Your task to perform on an android device: open app "Clock" (install if not already installed) Image 0: 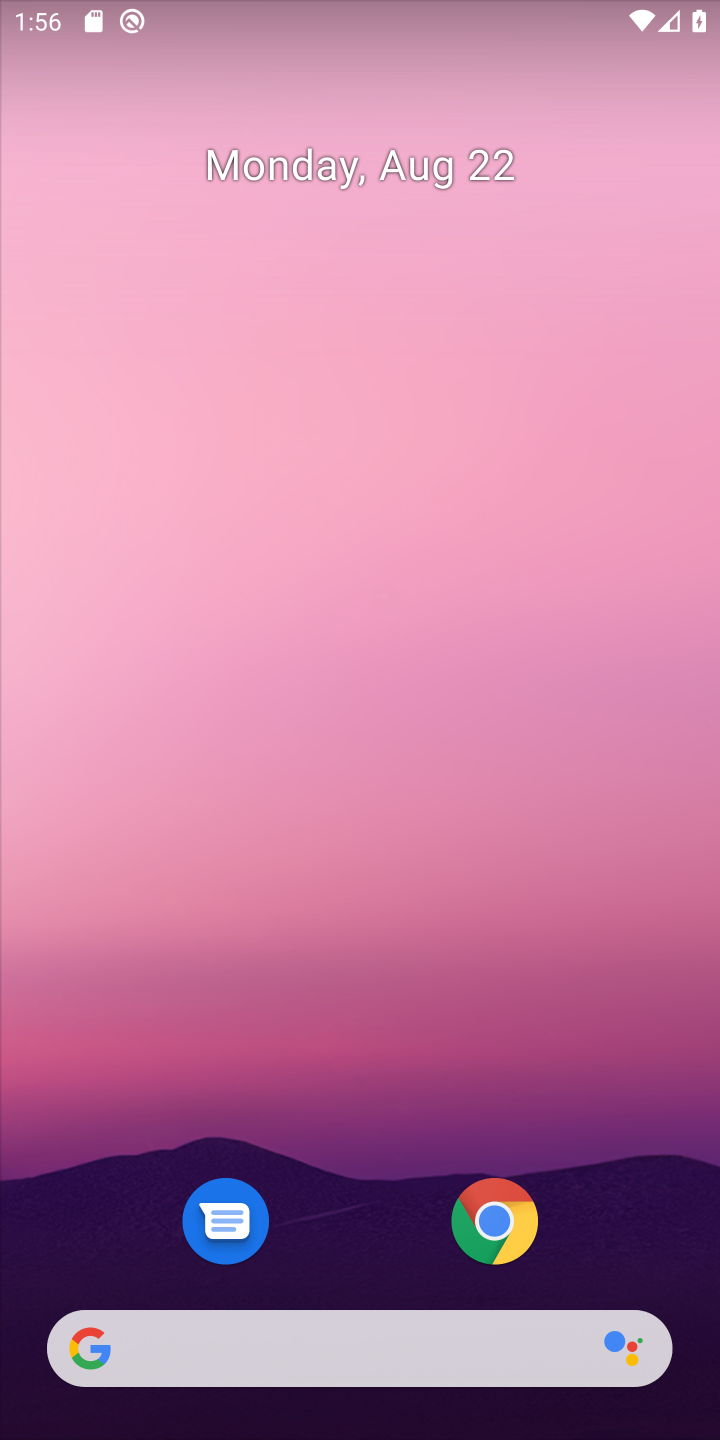
Step 0: press home button
Your task to perform on an android device: open app "Clock" (install if not already installed) Image 1: 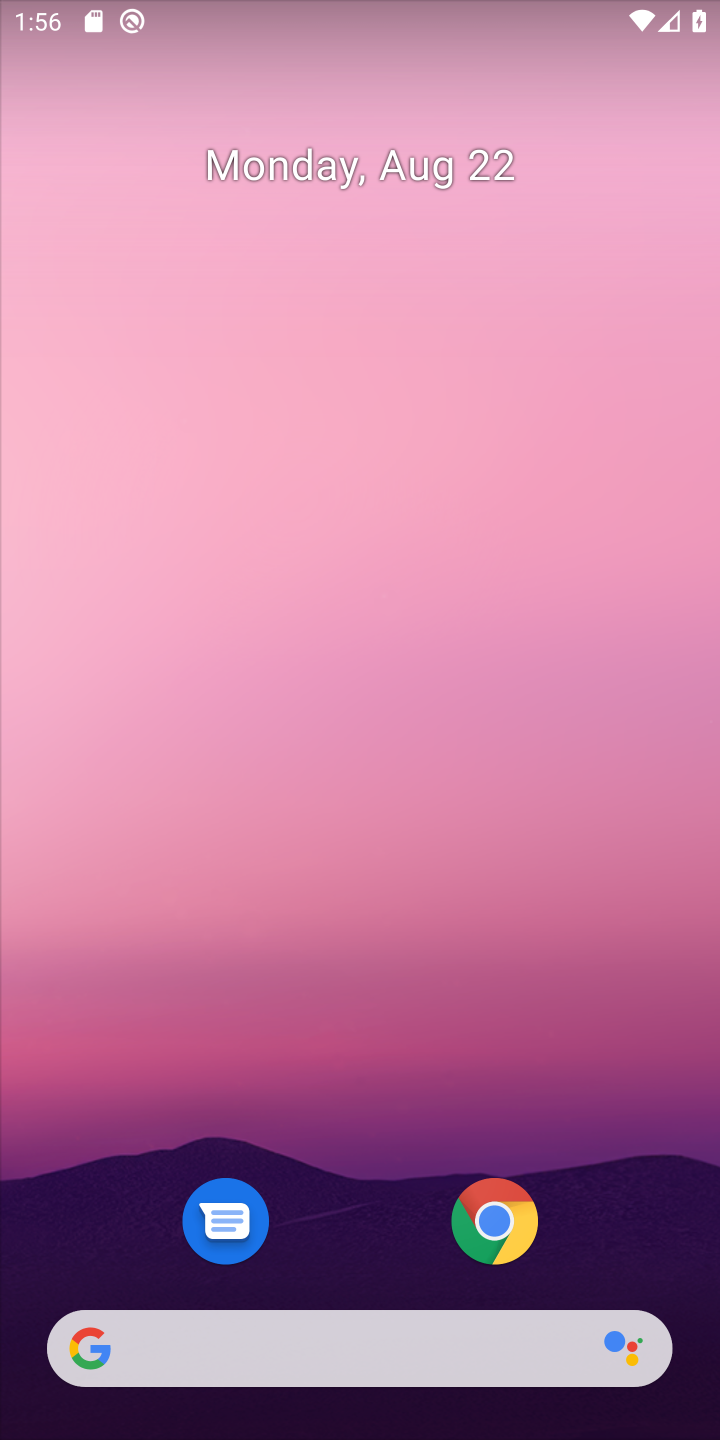
Step 1: drag from (365, 1236) to (356, 165)
Your task to perform on an android device: open app "Clock" (install if not already installed) Image 2: 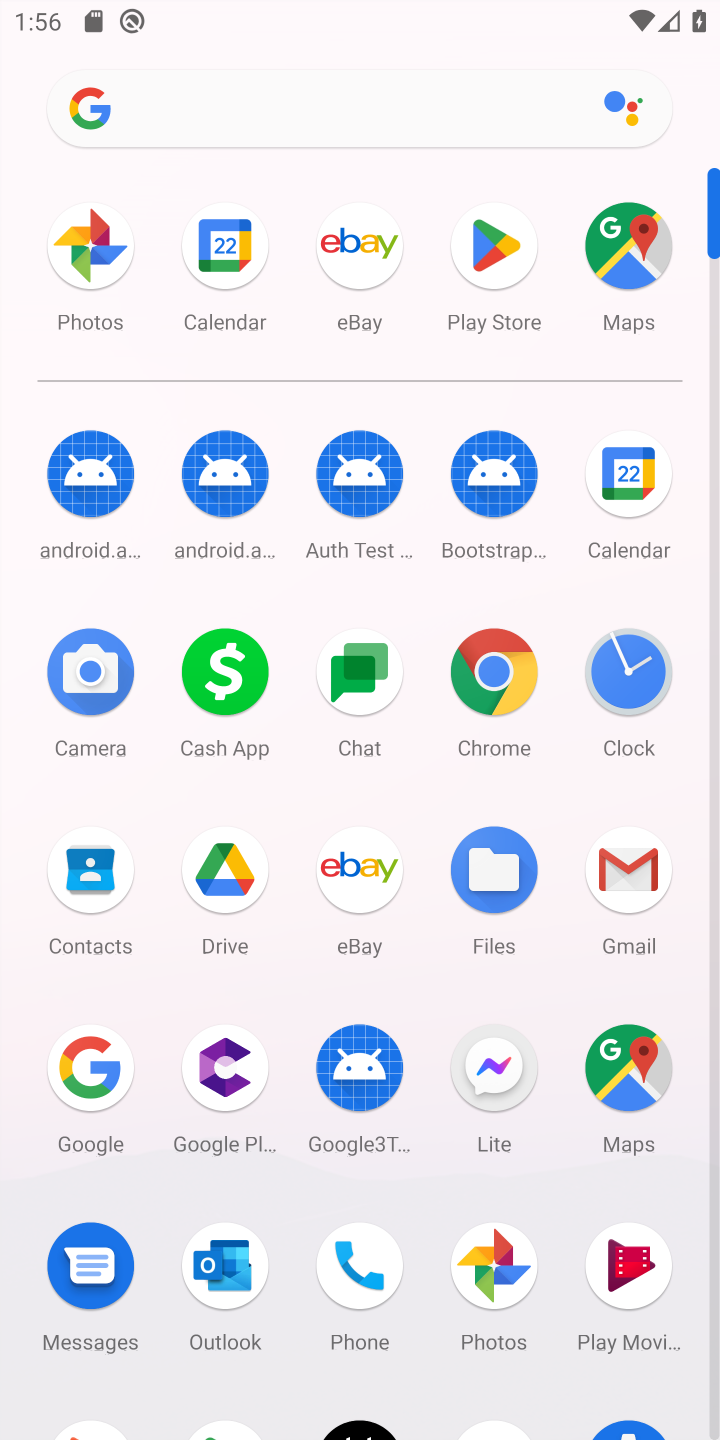
Step 2: click (624, 660)
Your task to perform on an android device: open app "Clock" (install if not already installed) Image 3: 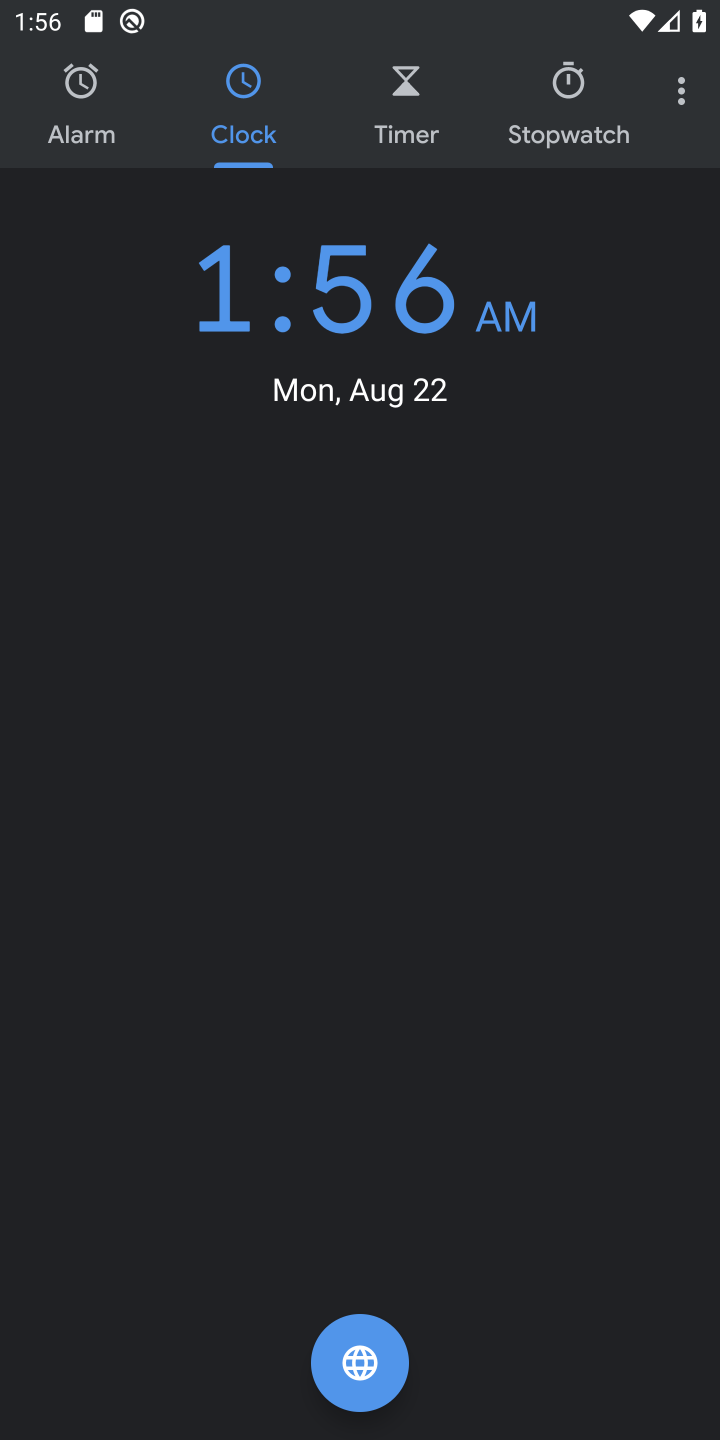
Step 3: press home button
Your task to perform on an android device: open app "Clock" (install if not already installed) Image 4: 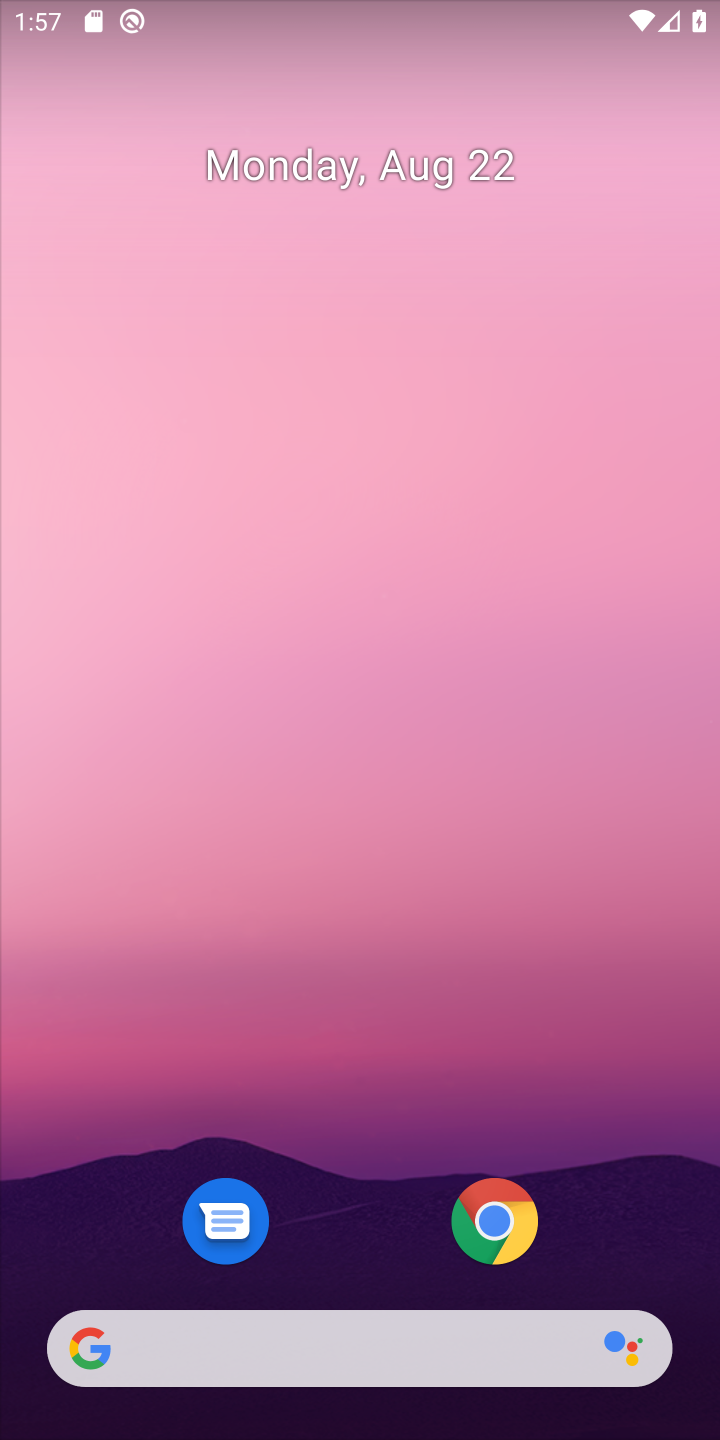
Step 4: drag from (367, 1247) to (373, 175)
Your task to perform on an android device: open app "Clock" (install if not already installed) Image 5: 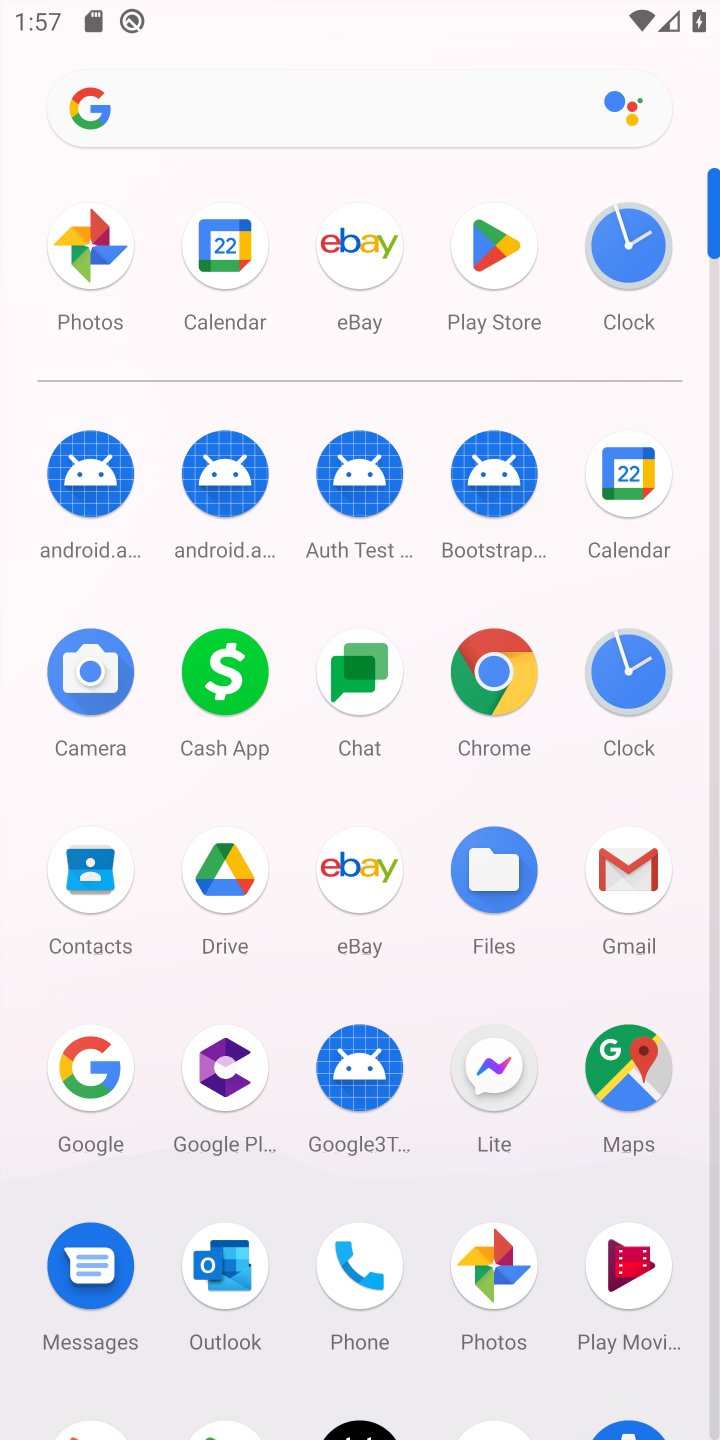
Step 5: click (483, 240)
Your task to perform on an android device: open app "Clock" (install if not already installed) Image 6: 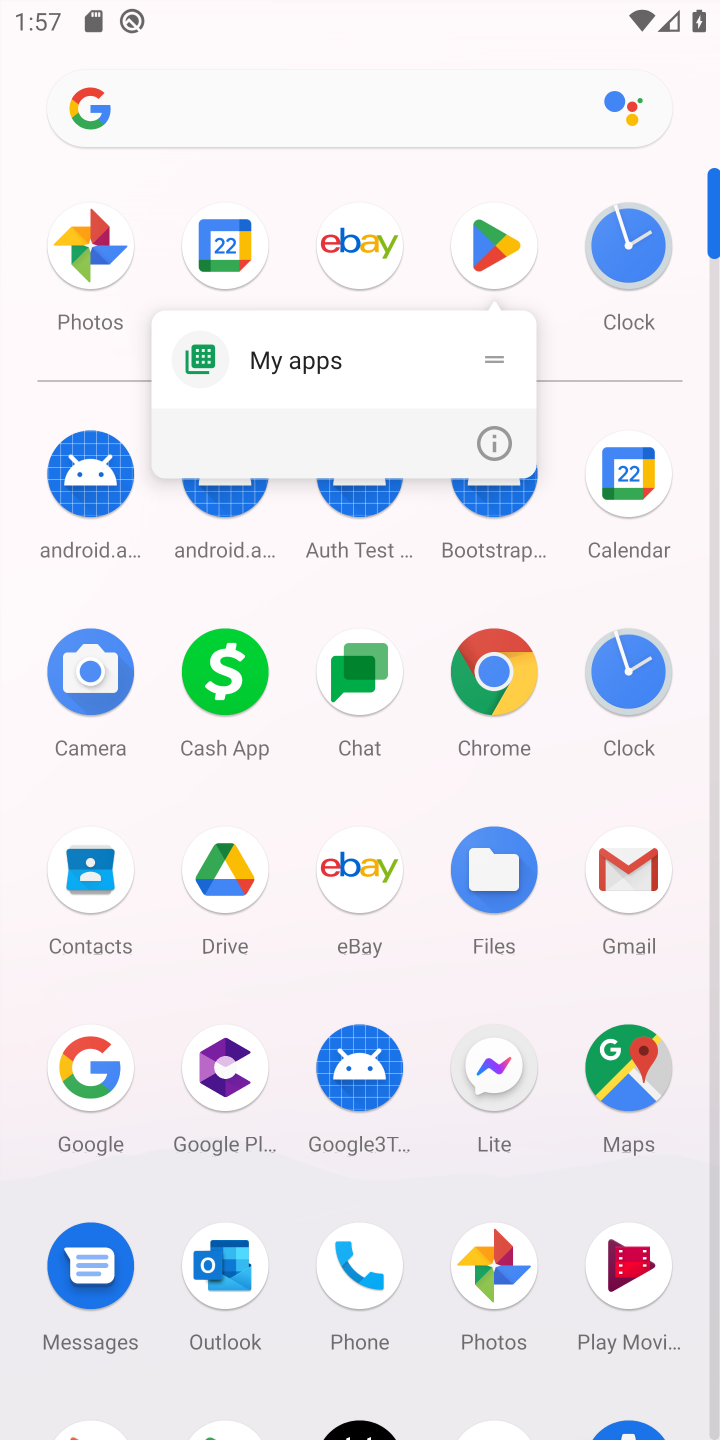
Step 6: click (493, 240)
Your task to perform on an android device: open app "Clock" (install if not already installed) Image 7: 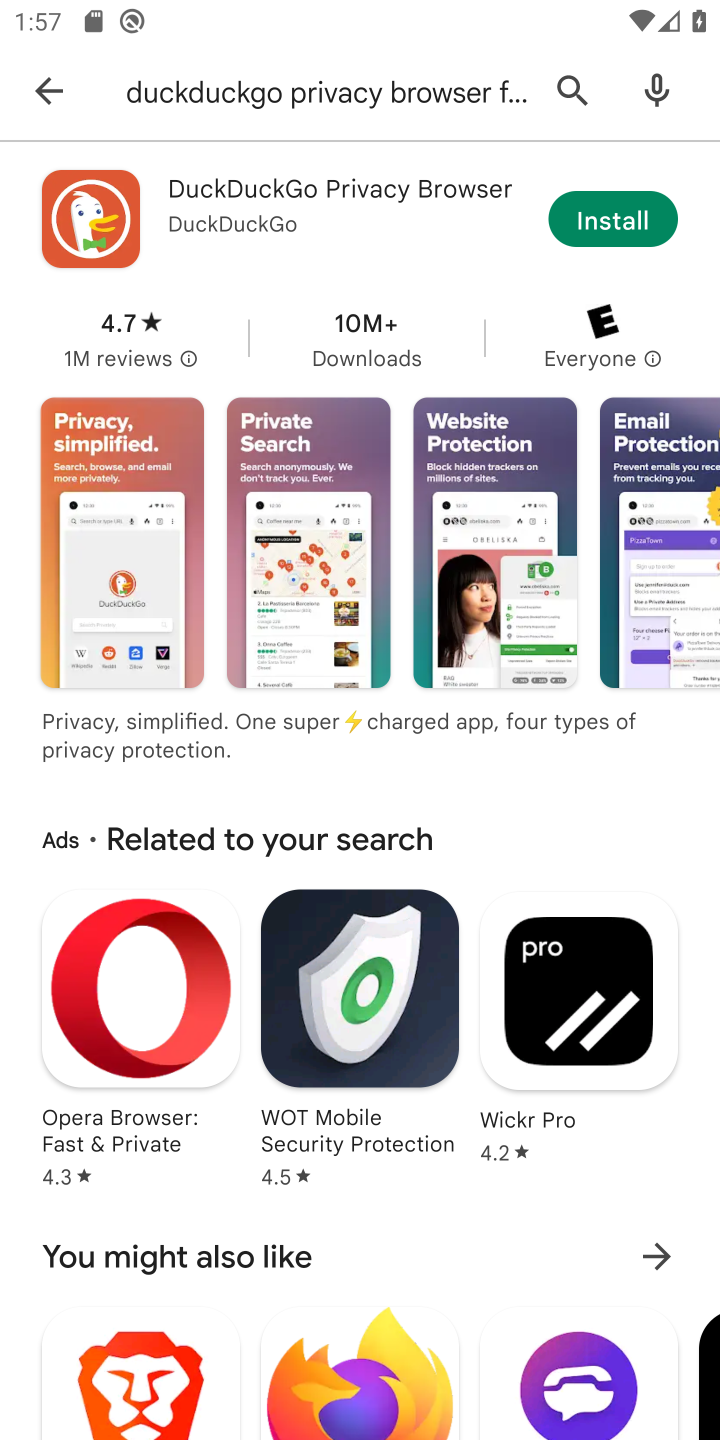
Step 7: click (560, 79)
Your task to perform on an android device: open app "Clock" (install if not already installed) Image 8: 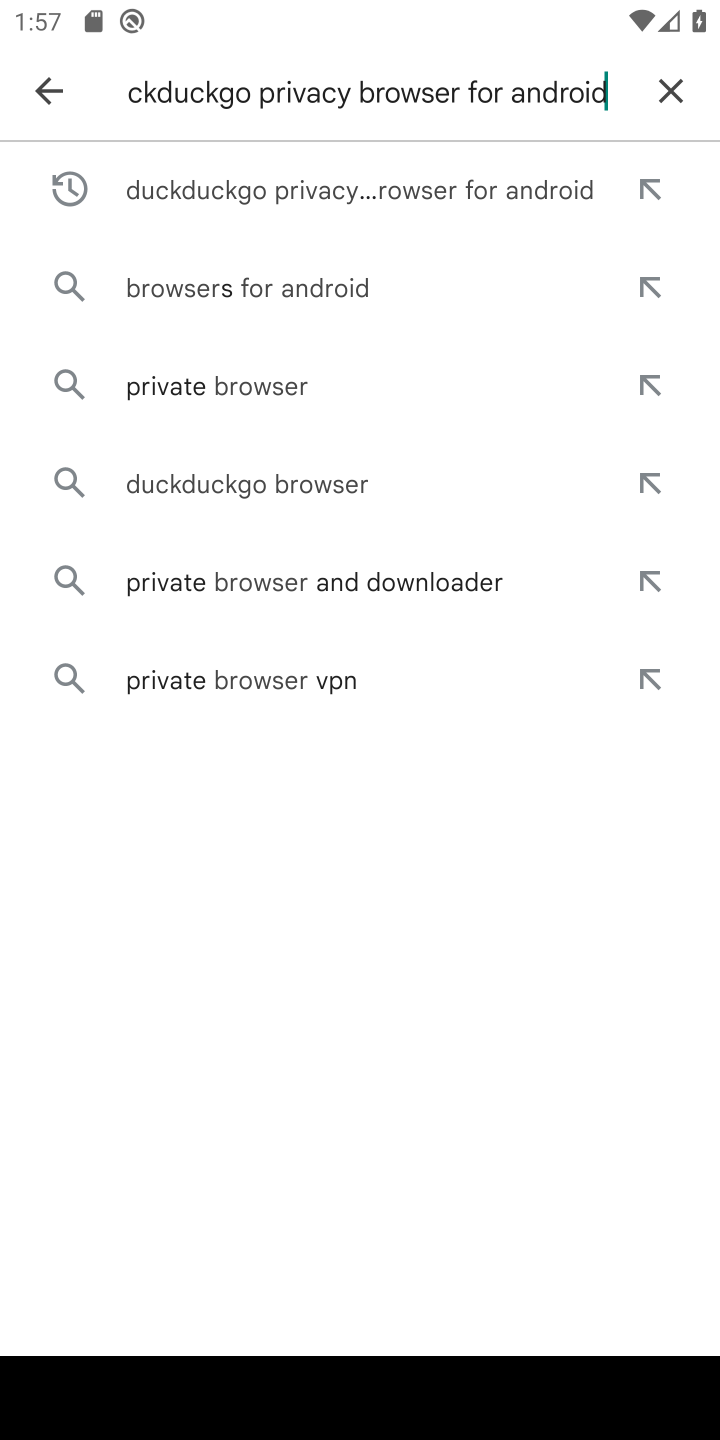
Step 8: click (661, 96)
Your task to perform on an android device: open app "Clock" (install if not already installed) Image 9: 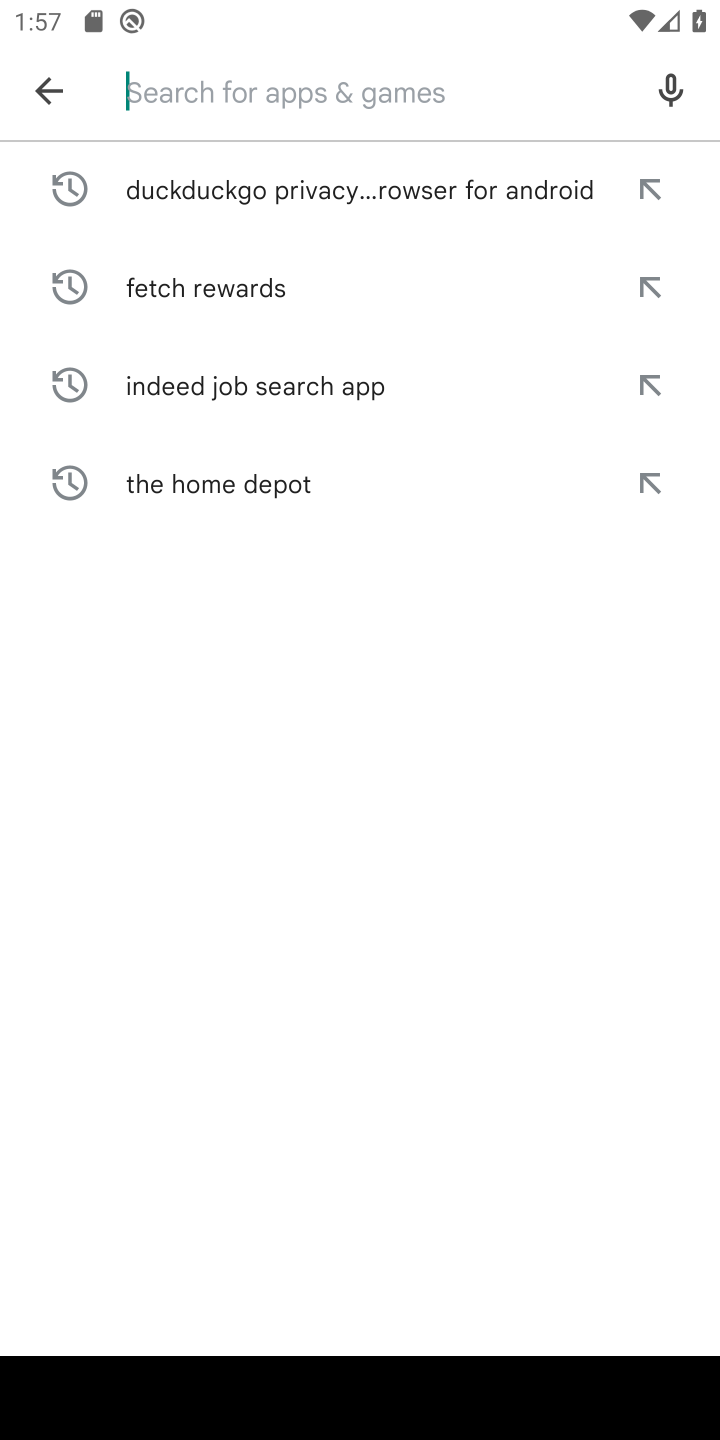
Step 9: type "Clock"
Your task to perform on an android device: open app "Clock" (install if not already installed) Image 10: 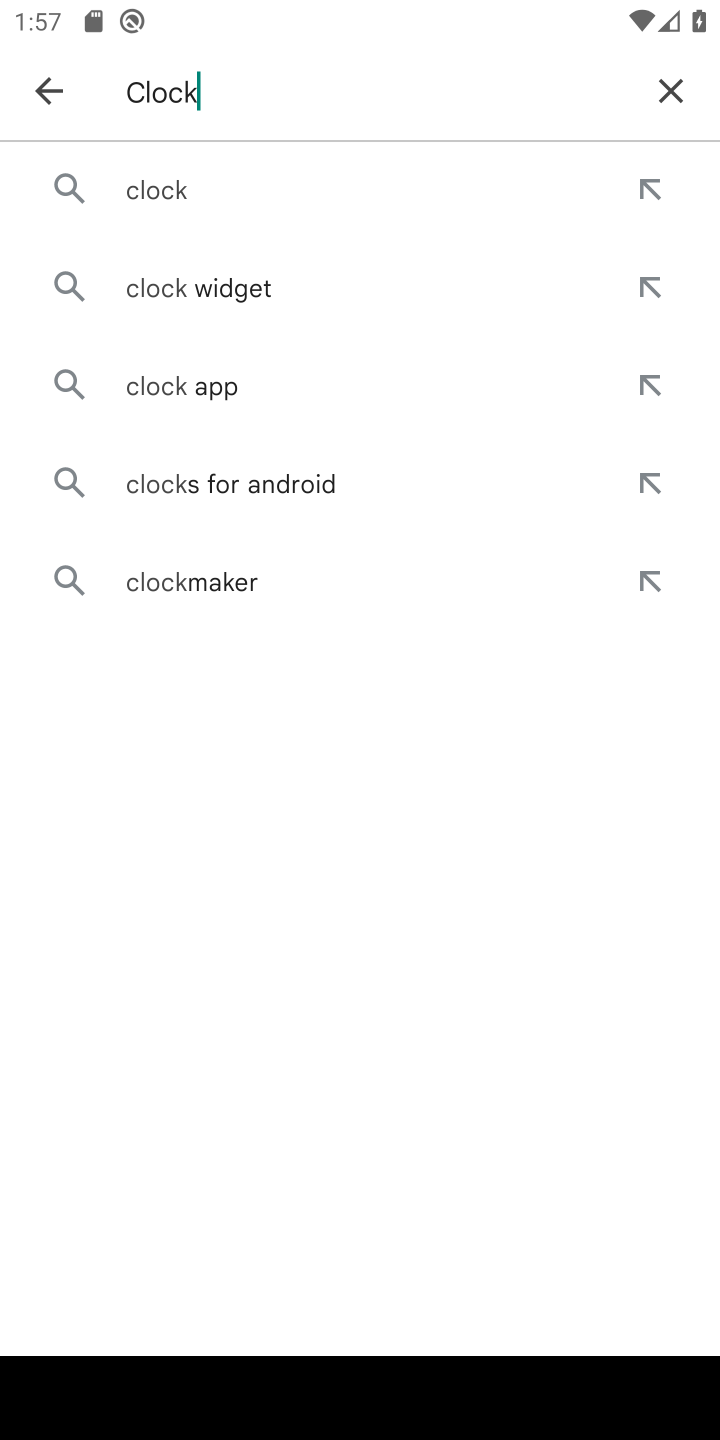
Step 10: click (217, 183)
Your task to perform on an android device: open app "Clock" (install if not already installed) Image 11: 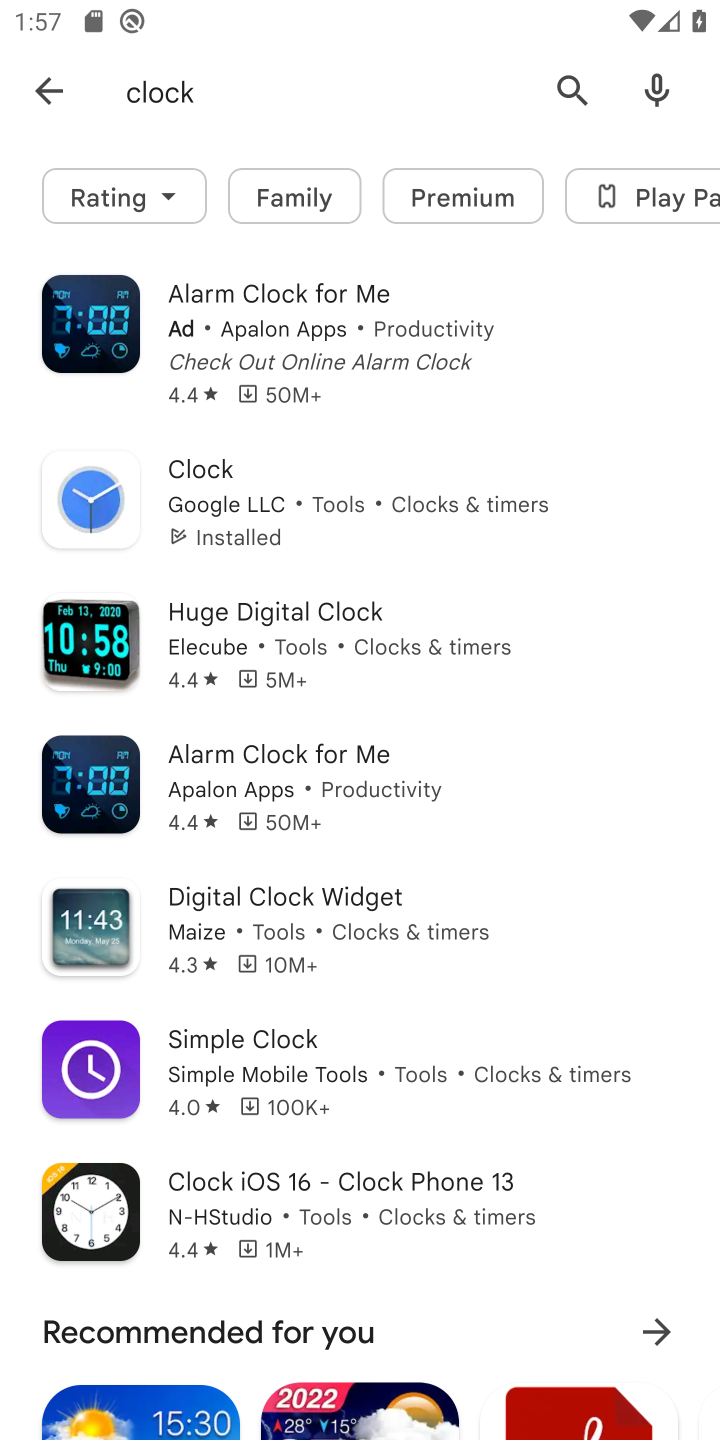
Step 11: click (292, 515)
Your task to perform on an android device: open app "Clock" (install if not already installed) Image 12: 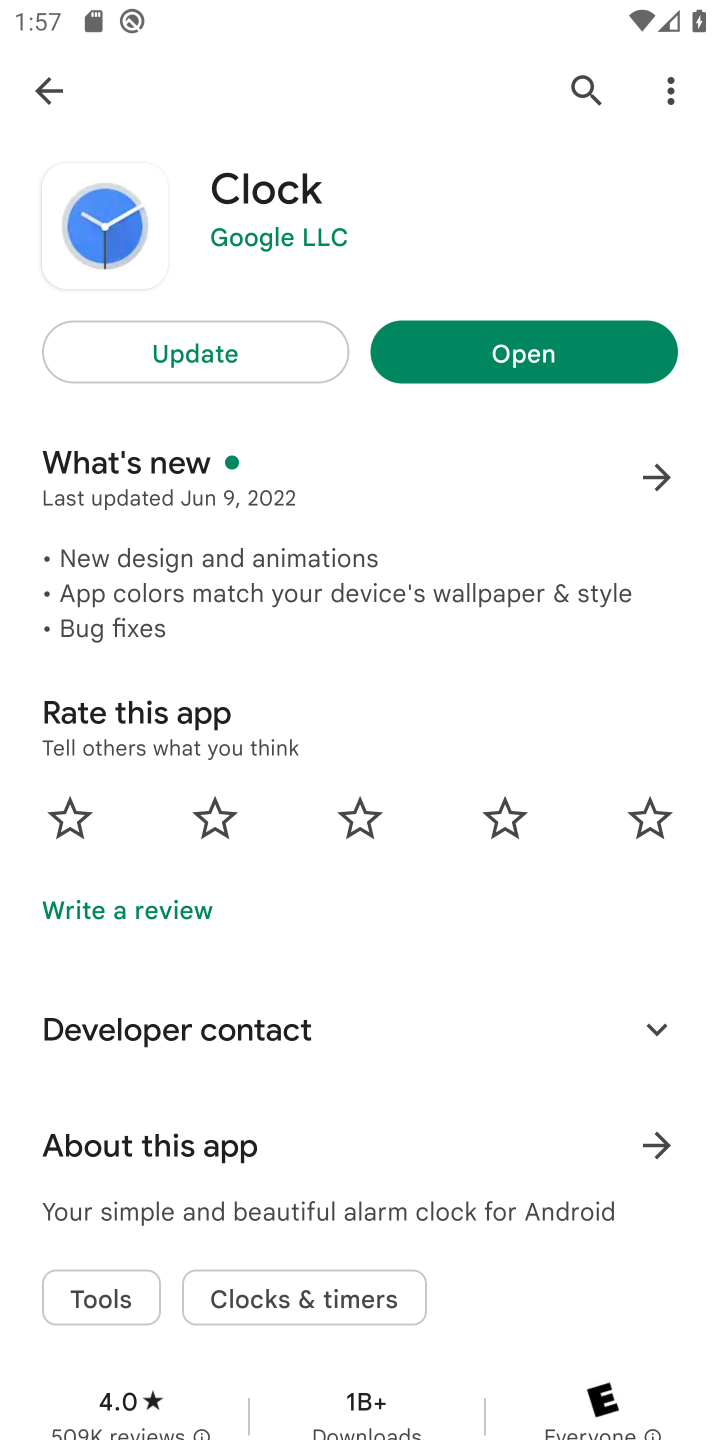
Step 12: click (512, 370)
Your task to perform on an android device: open app "Clock" (install if not already installed) Image 13: 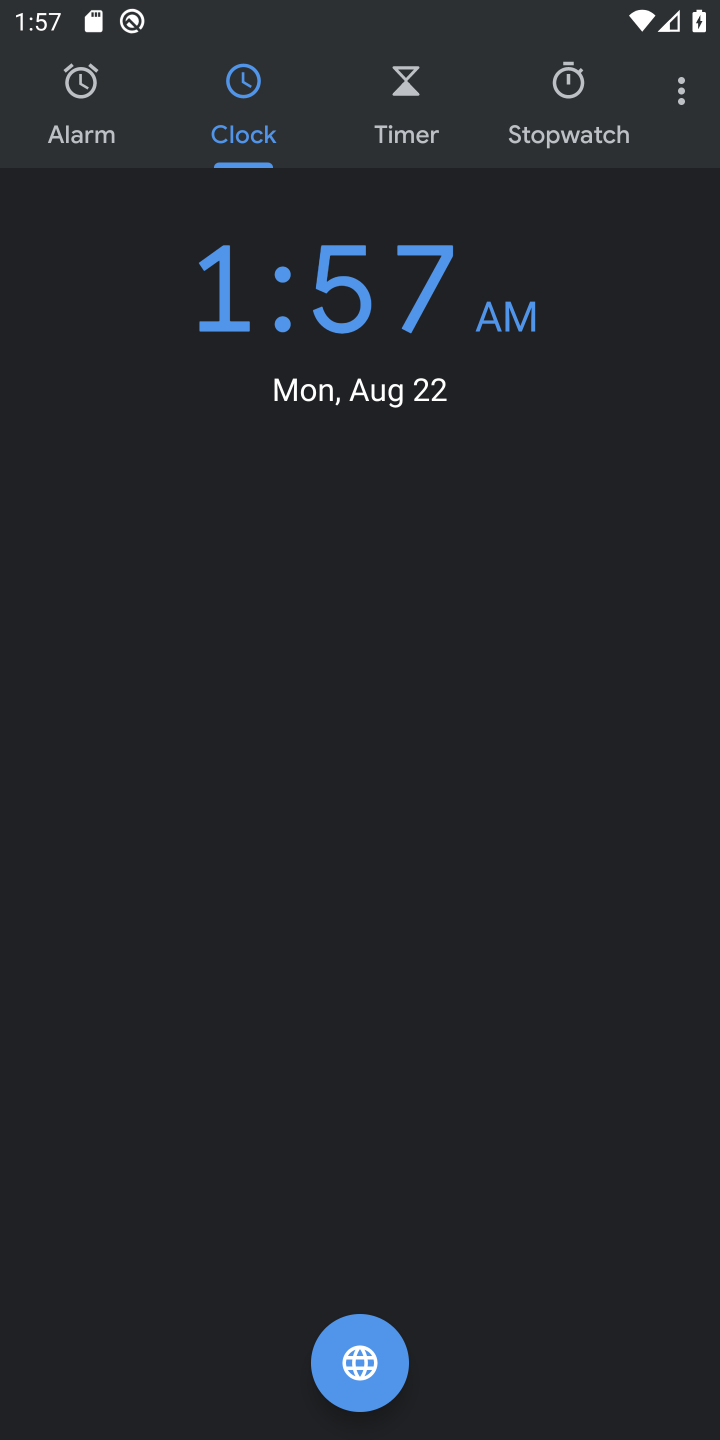
Step 13: task complete